Your task to perform on an android device: Is it going to rain this weekend? Image 0: 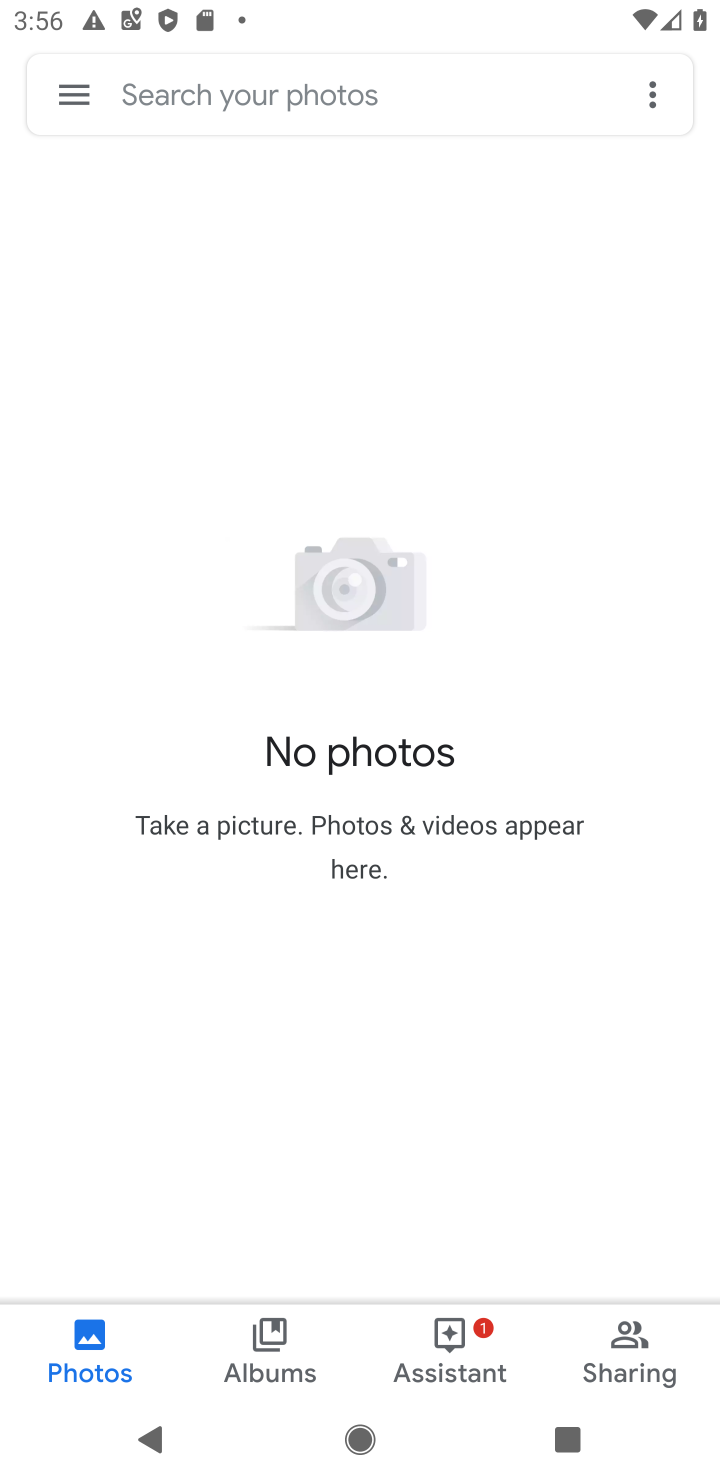
Step 0: press home button
Your task to perform on an android device: Is it going to rain this weekend? Image 1: 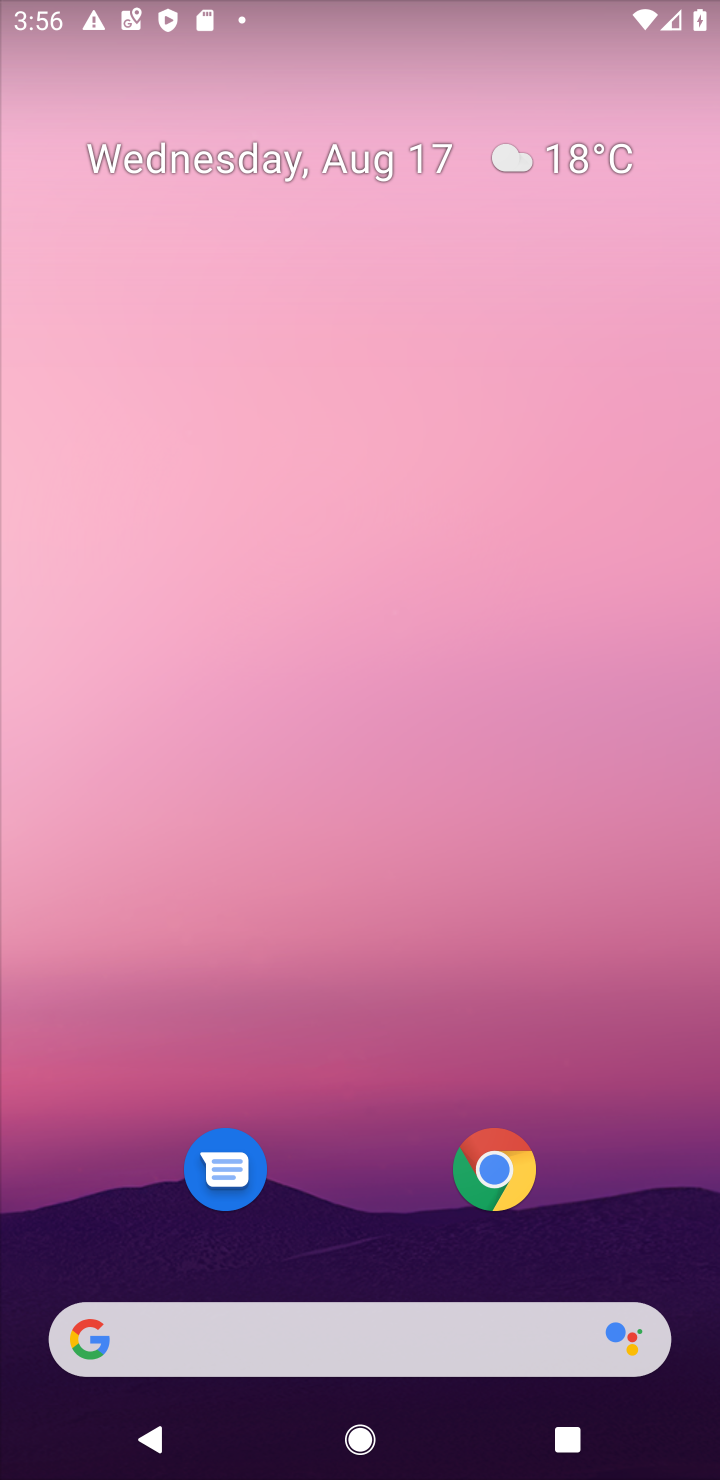
Step 1: click (524, 1184)
Your task to perform on an android device: Is it going to rain this weekend? Image 2: 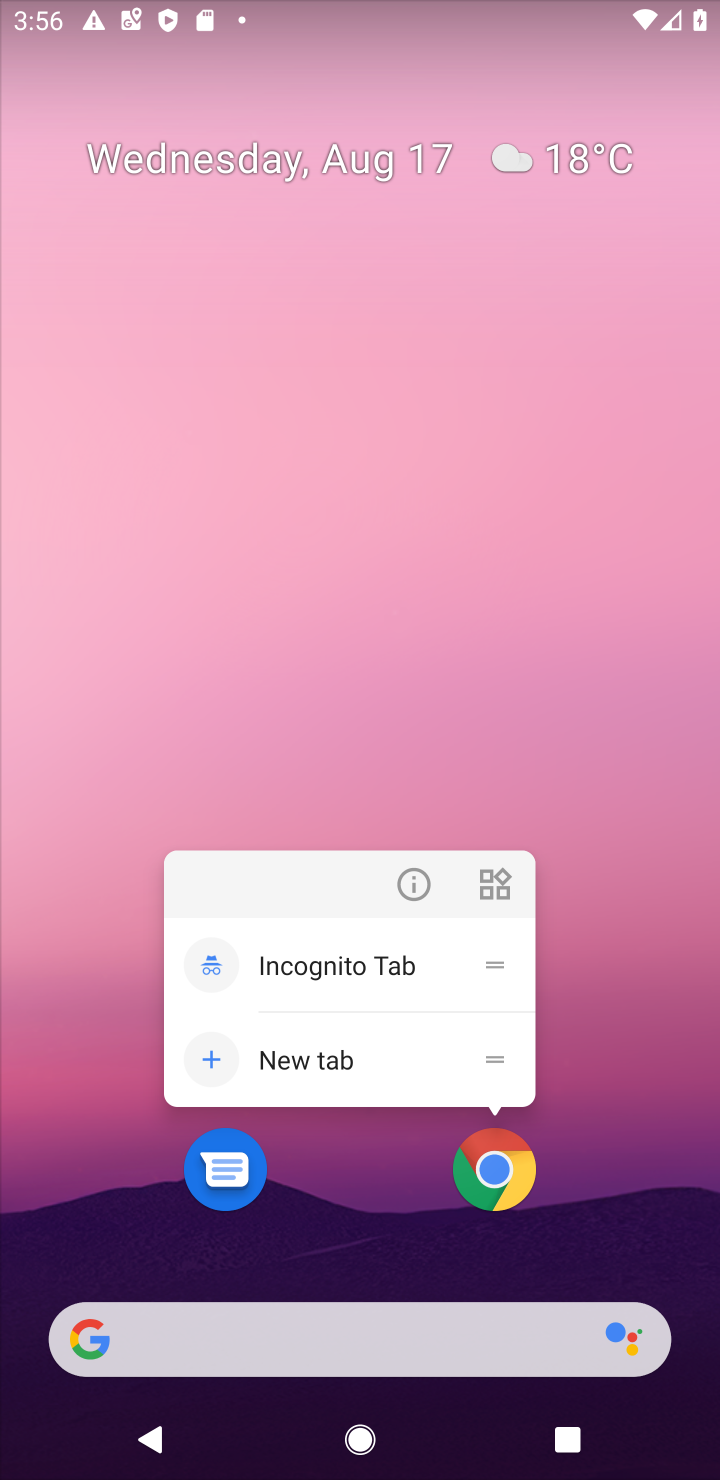
Step 2: click (500, 1156)
Your task to perform on an android device: Is it going to rain this weekend? Image 3: 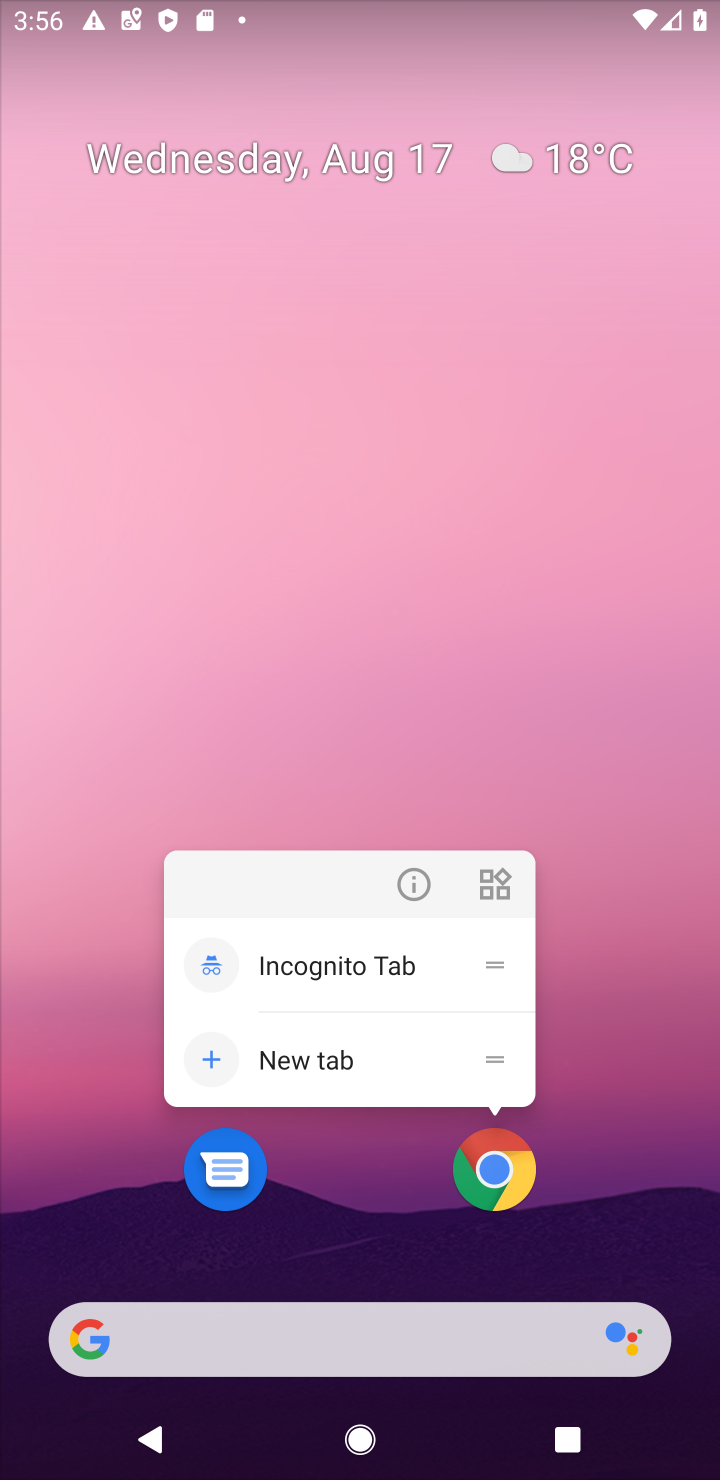
Step 3: click (480, 1148)
Your task to perform on an android device: Is it going to rain this weekend? Image 4: 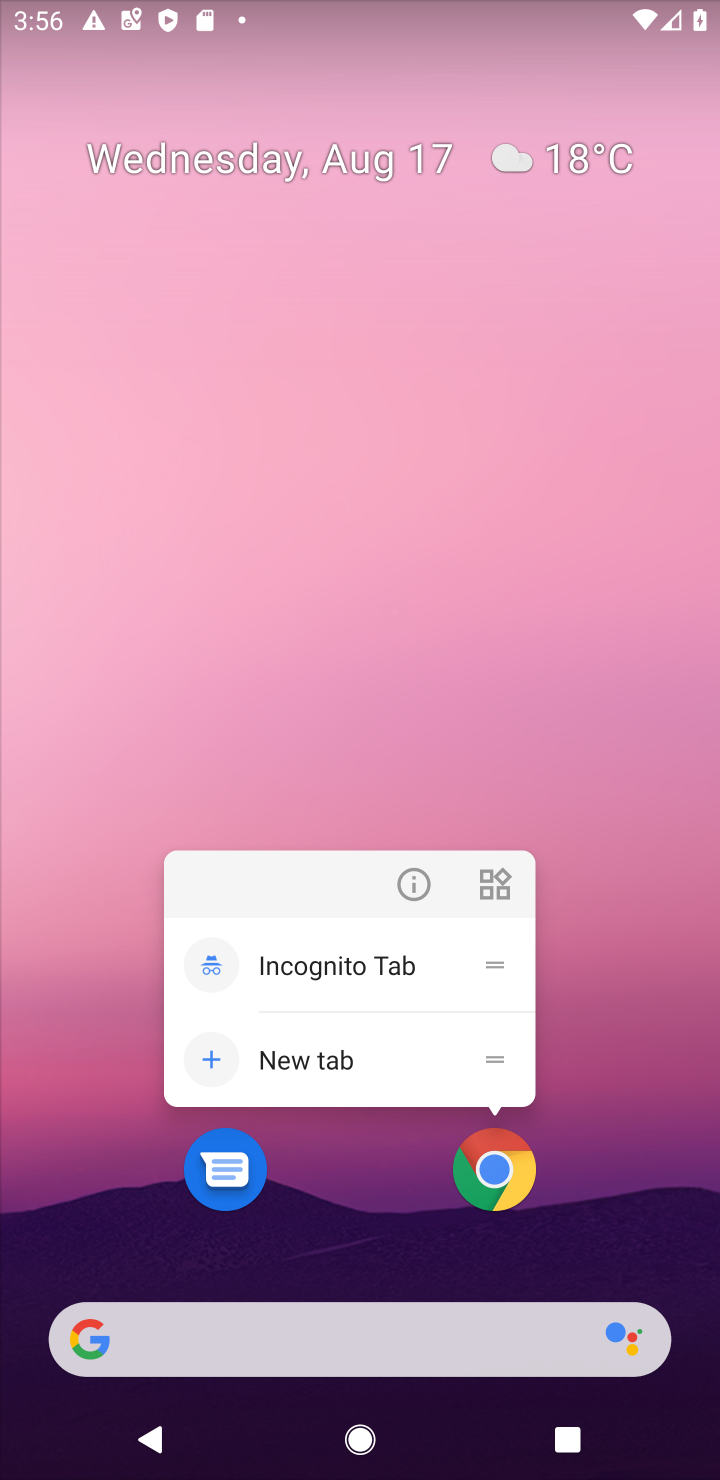
Step 4: click (507, 1167)
Your task to perform on an android device: Is it going to rain this weekend? Image 5: 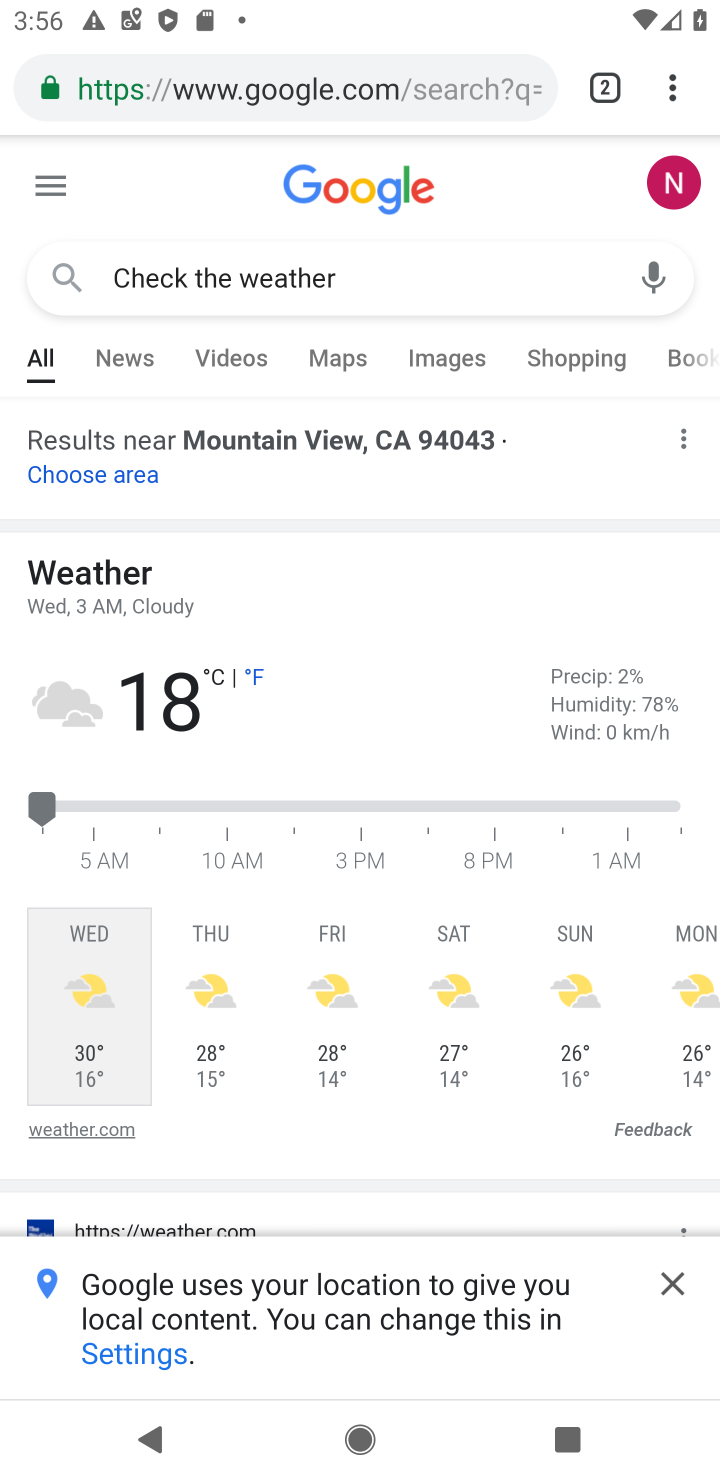
Step 5: click (180, 85)
Your task to perform on an android device: Is it going to rain this weekend? Image 6: 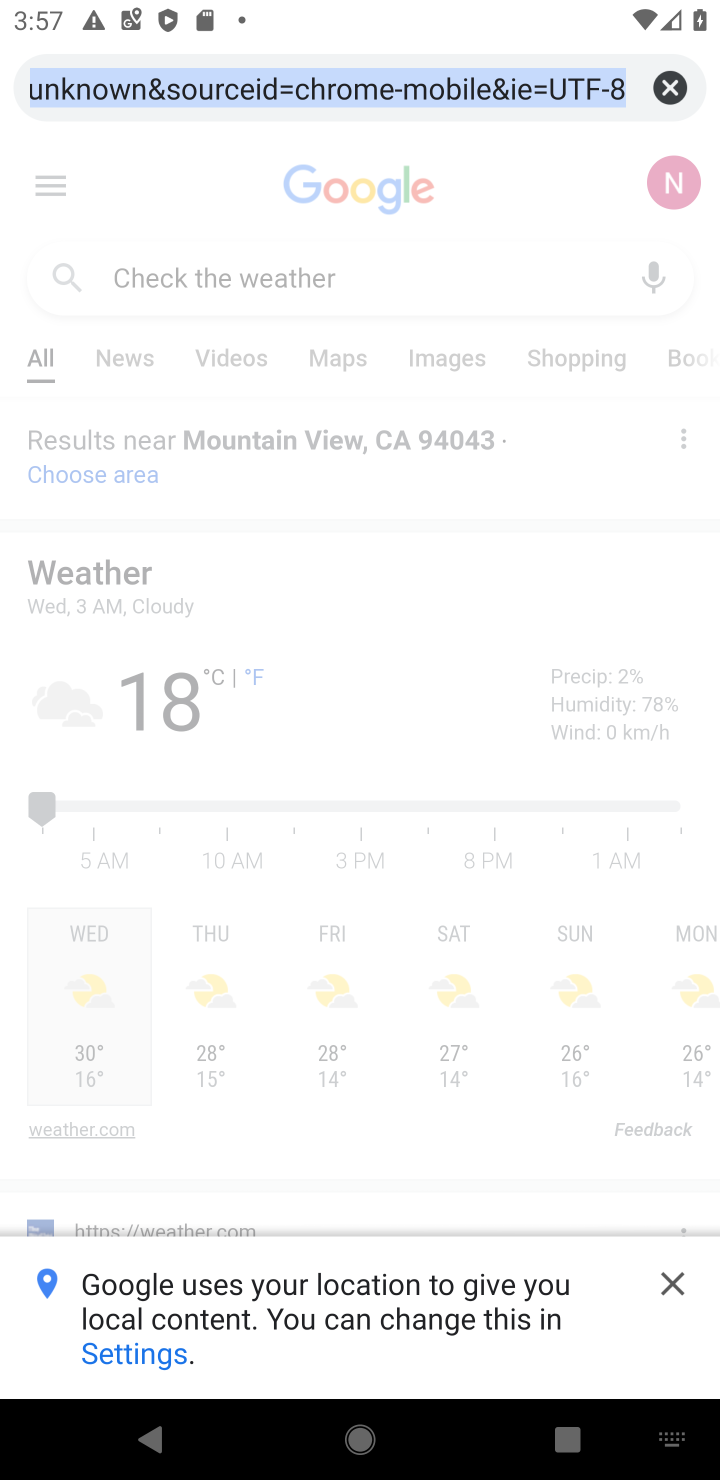
Step 6: type "Is it going to rain this weekend?"
Your task to perform on an android device: Is it going to rain this weekend? Image 7: 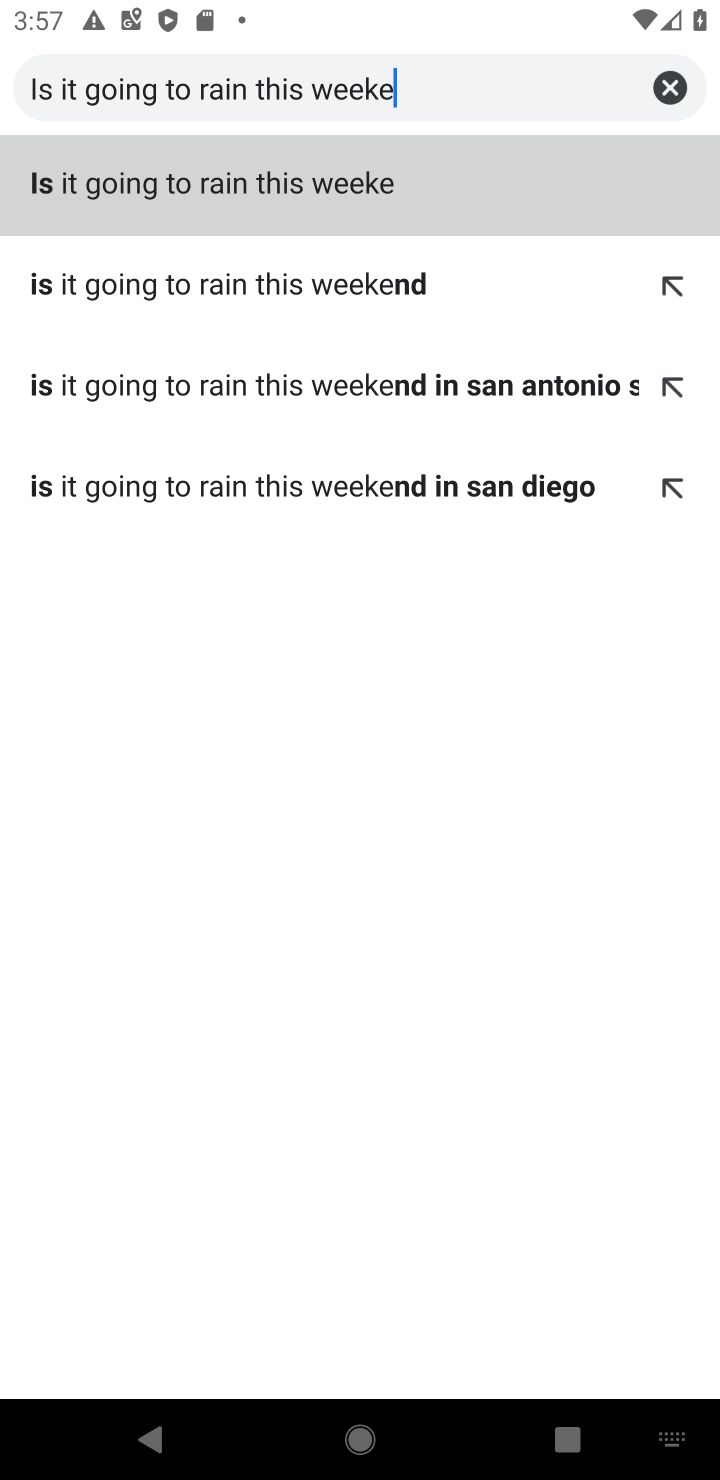
Step 7: click (280, 169)
Your task to perform on an android device: Is it going to rain this weekend? Image 8: 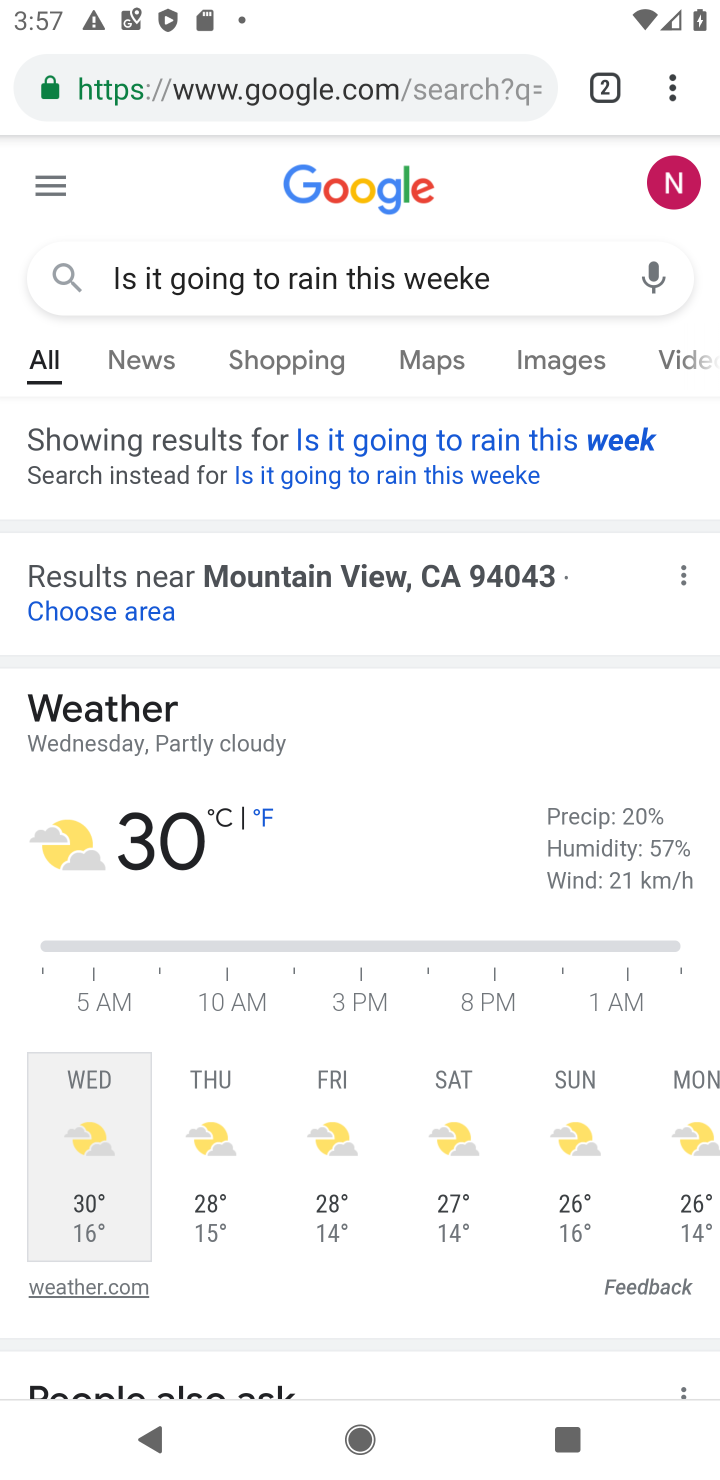
Step 8: task complete